Your task to perform on an android device: change timer sound Image 0: 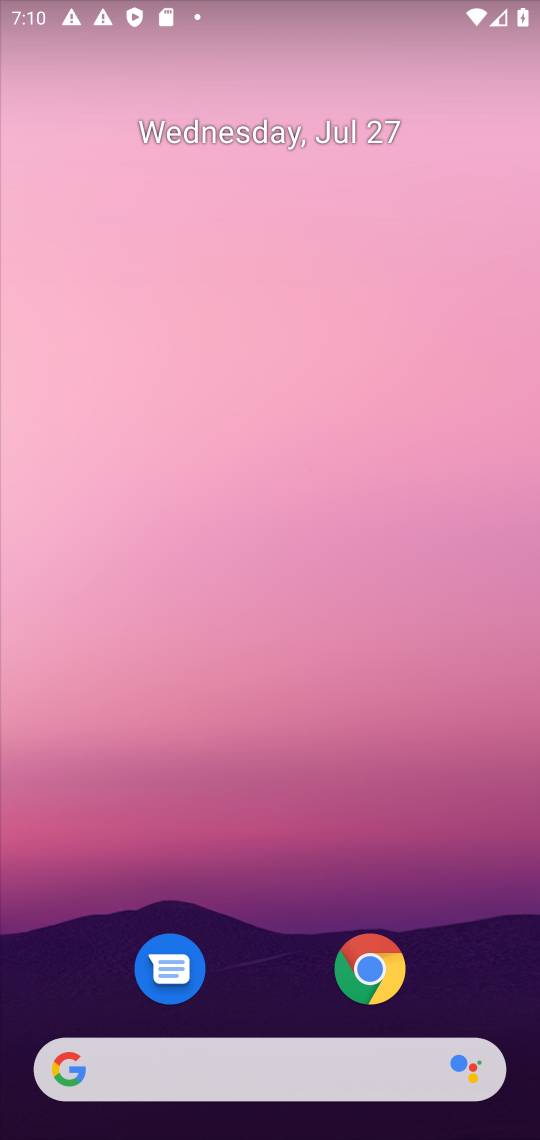
Step 0: drag from (270, 807) to (143, 69)
Your task to perform on an android device: change timer sound Image 1: 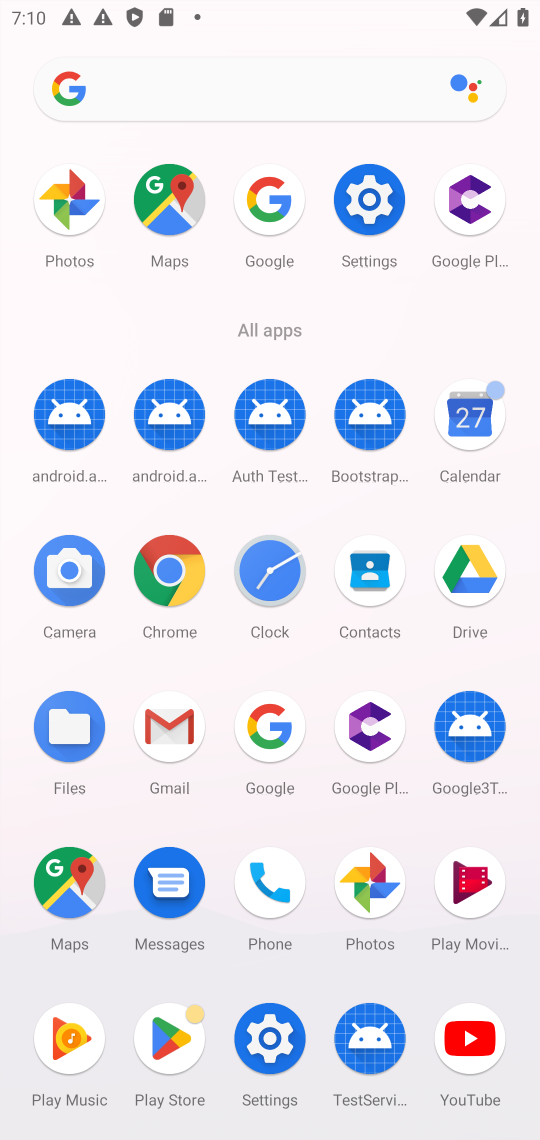
Step 1: click (284, 607)
Your task to perform on an android device: change timer sound Image 2: 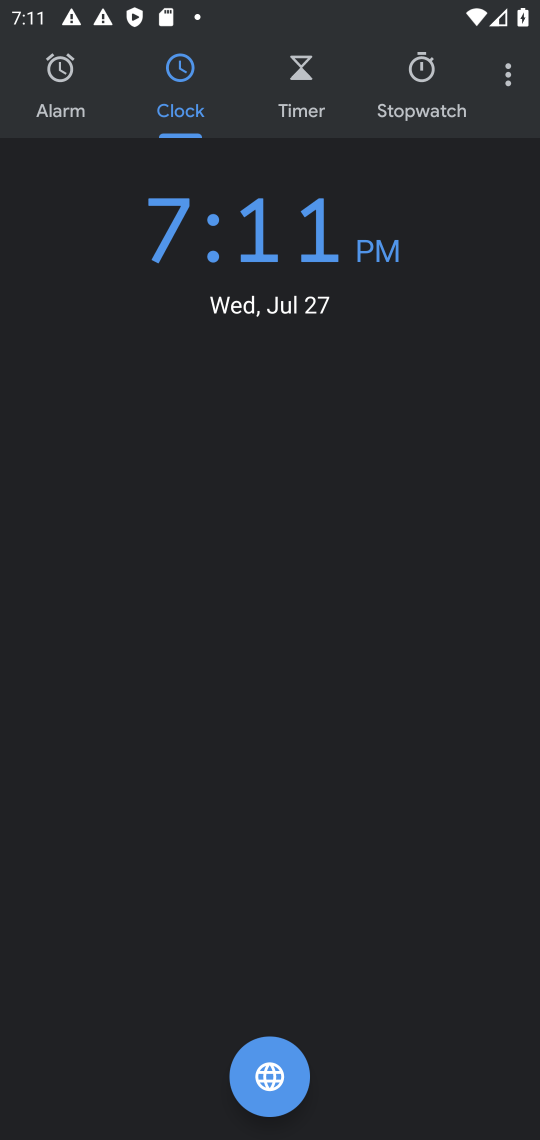
Step 2: click (517, 77)
Your task to perform on an android device: change timer sound Image 3: 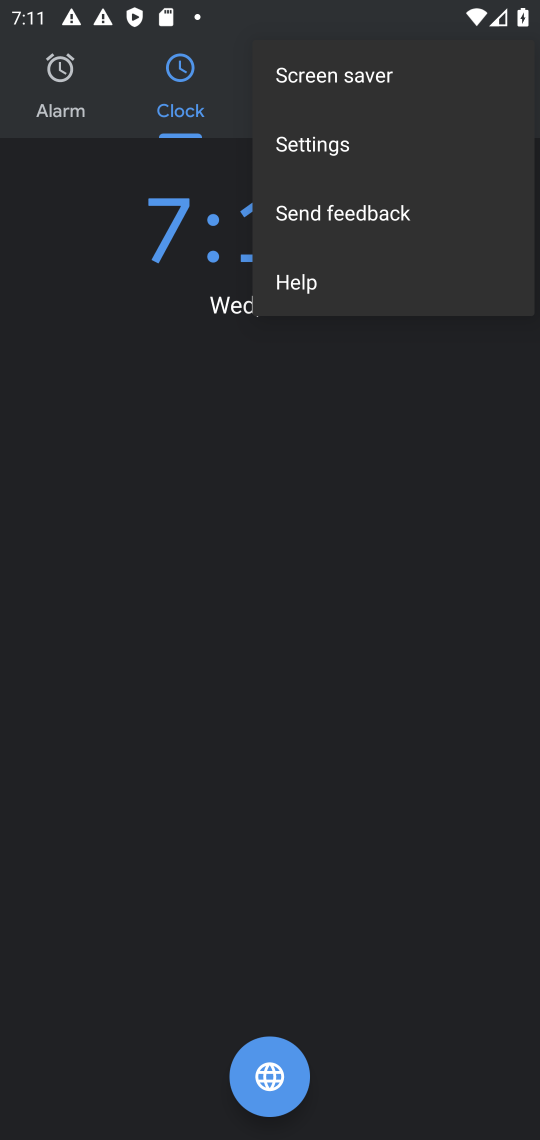
Step 3: click (357, 161)
Your task to perform on an android device: change timer sound Image 4: 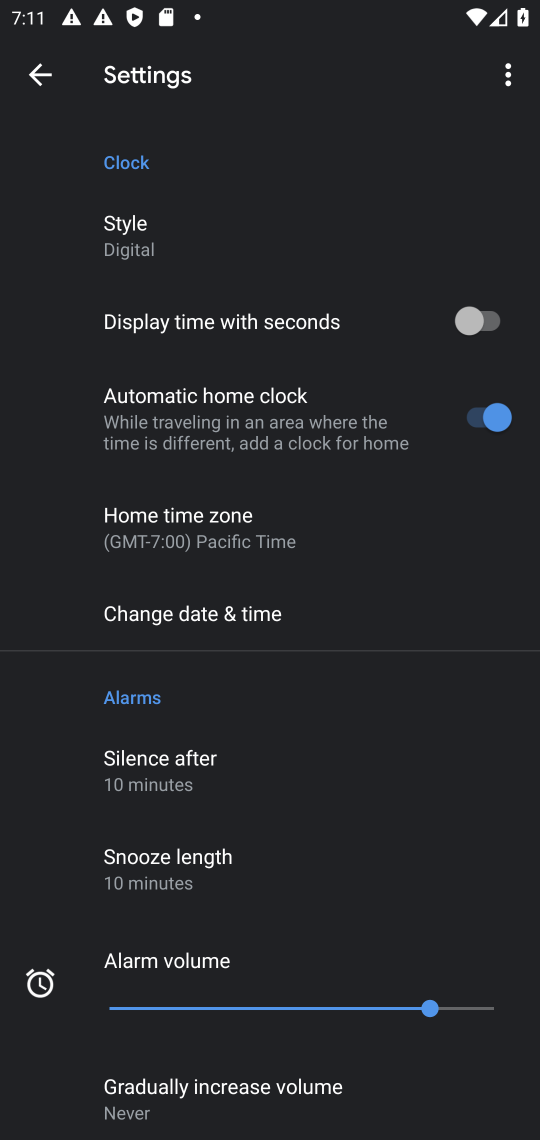
Step 4: drag from (230, 911) to (229, 396)
Your task to perform on an android device: change timer sound Image 5: 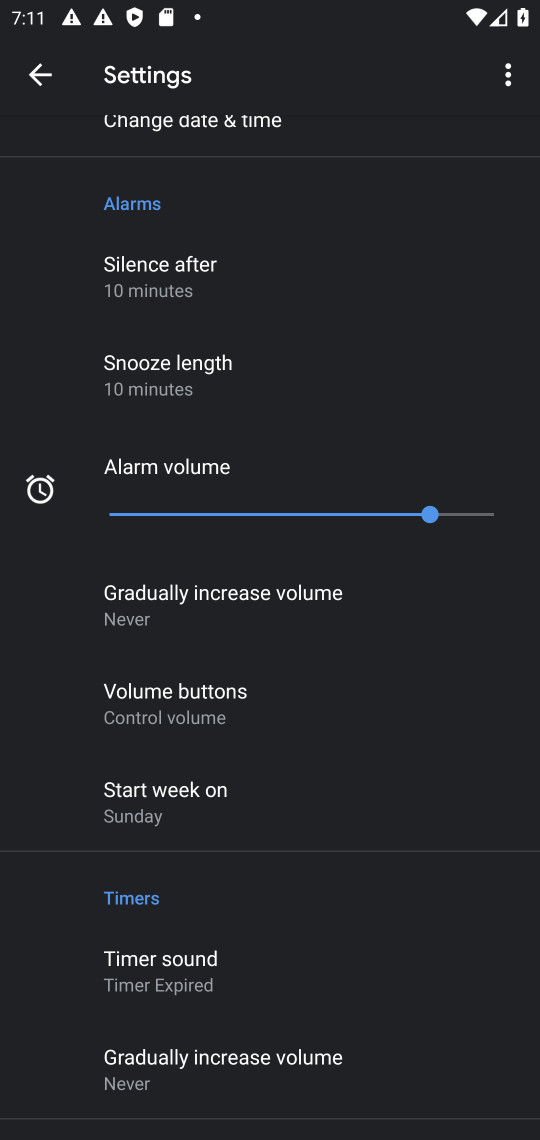
Step 5: click (243, 962)
Your task to perform on an android device: change timer sound Image 6: 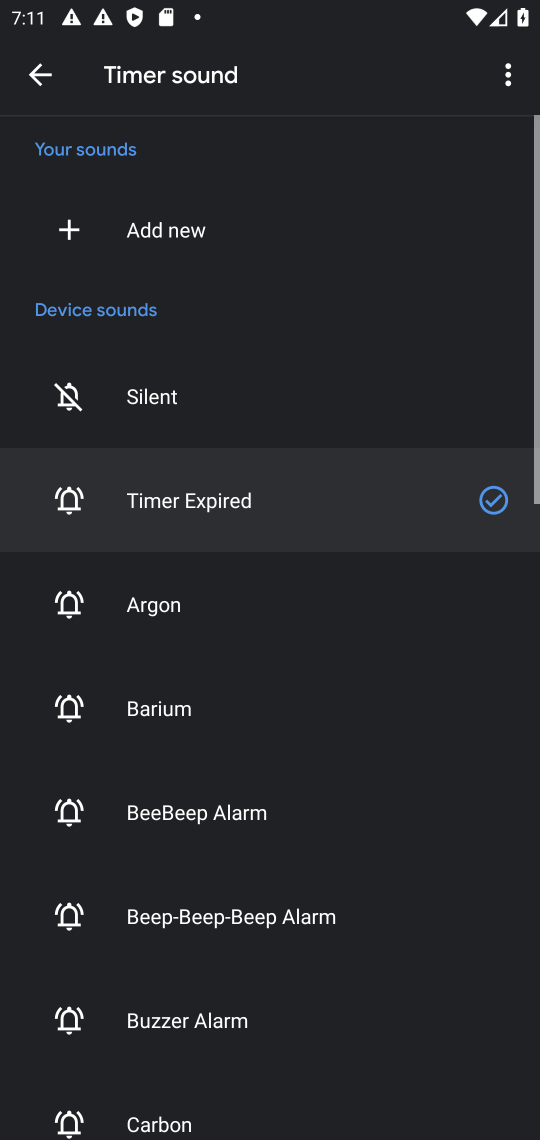
Step 6: click (209, 625)
Your task to perform on an android device: change timer sound Image 7: 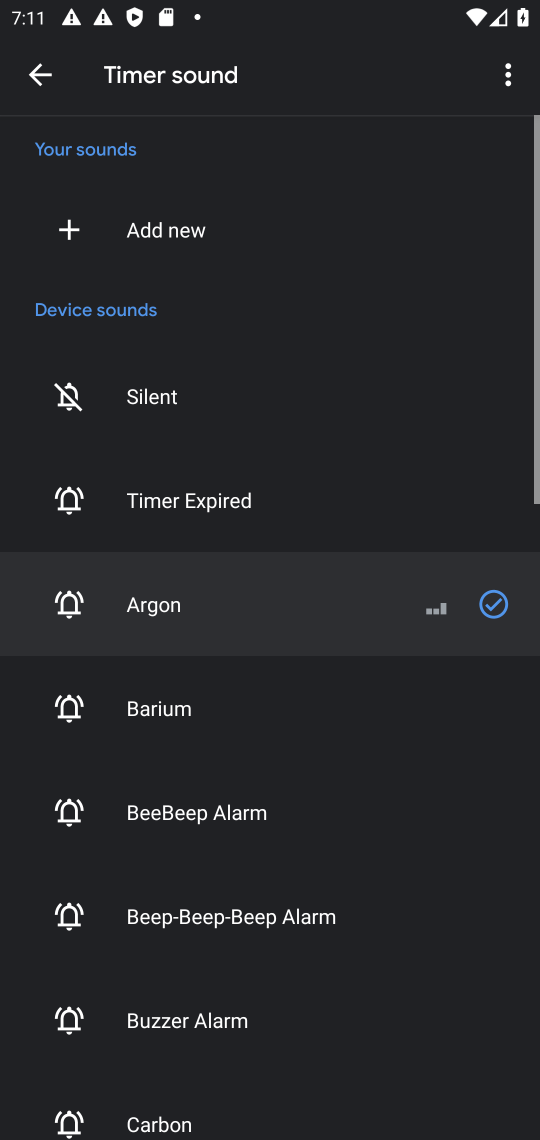
Step 7: task complete